Your task to perform on an android device: read, delete, or share a saved page in the chrome app Image 0: 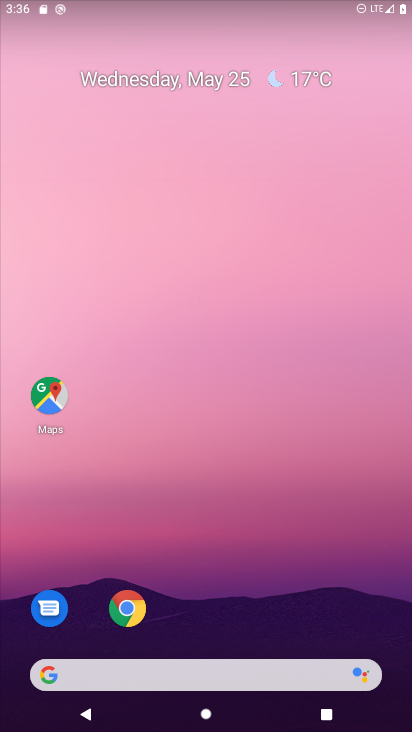
Step 0: click (128, 606)
Your task to perform on an android device: read, delete, or share a saved page in the chrome app Image 1: 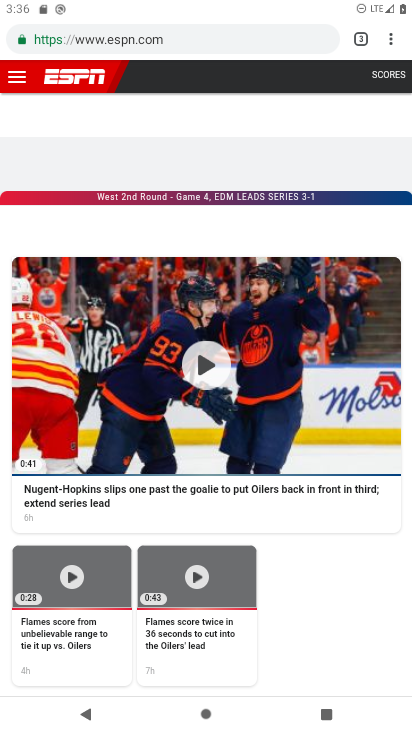
Step 1: click (388, 37)
Your task to perform on an android device: read, delete, or share a saved page in the chrome app Image 2: 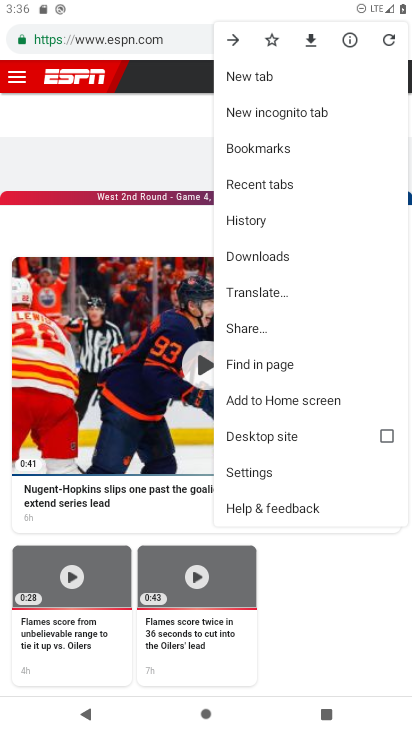
Step 2: click (255, 258)
Your task to perform on an android device: read, delete, or share a saved page in the chrome app Image 3: 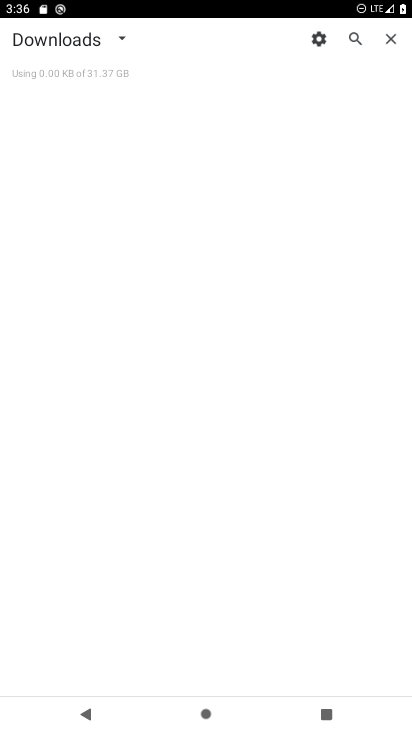
Step 3: click (118, 38)
Your task to perform on an android device: read, delete, or share a saved page in the chrome app Image 4: 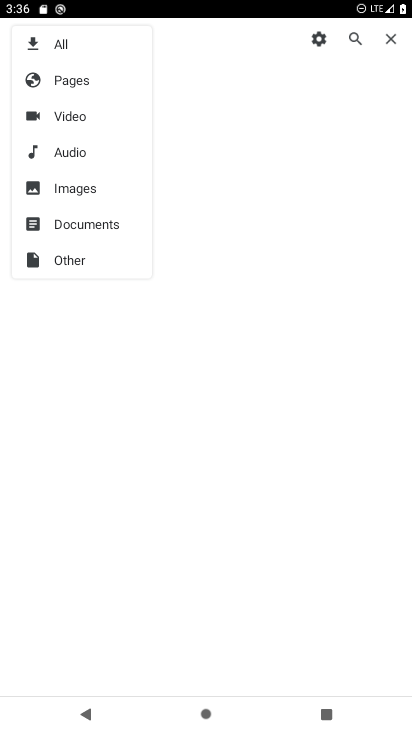
Step 4: click (59, 75)
Your task to perform on an android device: read, delete, or share a saved page in the chrome app Image 5: 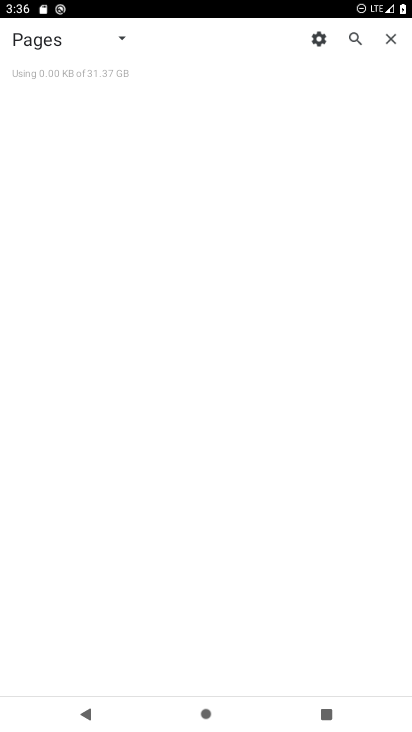
Step 5: task complete